Your task to perform on an android device: Do I have any events today? Image 0: 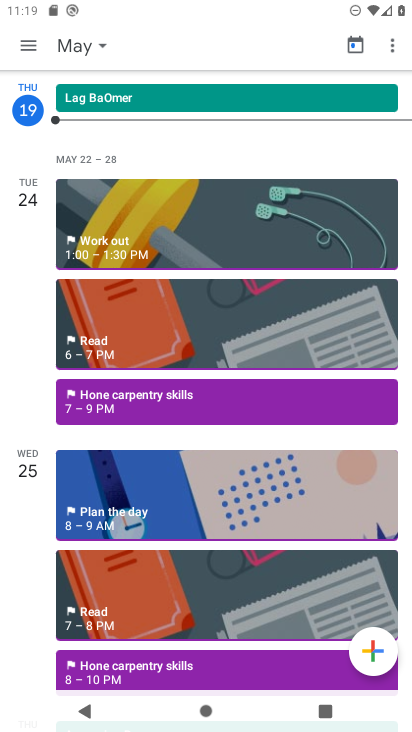
Step 0: press home button
Your task to perform on an android device: Do I have any events today? Image 1: 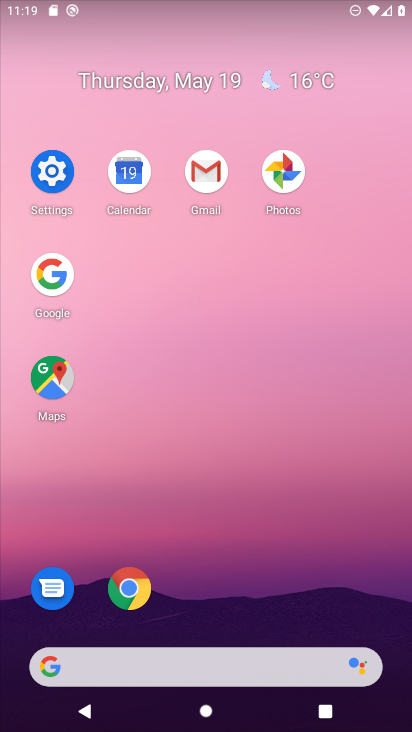
Step 1: click (122, 177)
Your task to perform on an android device: Do I have any events today? Image 2: 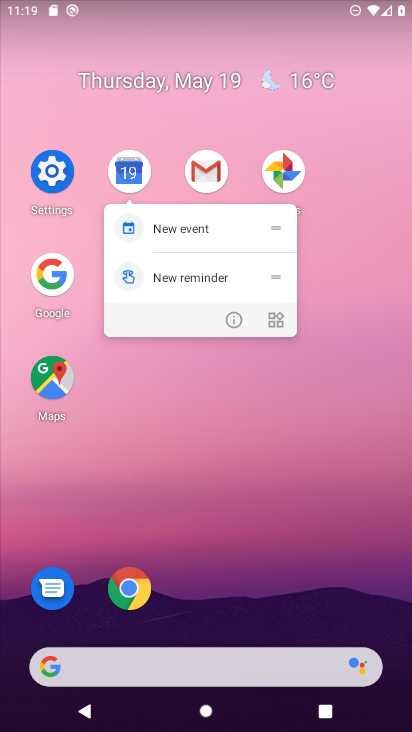
Step 2: click (139, 173)
Your task to perform on an android device: Do I have any events today? Image 3: 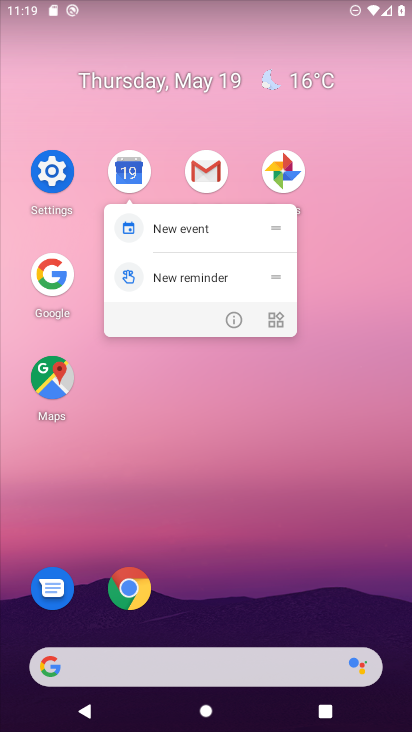
Step 3: click (139, 173)
Your task to perform on an android device: Do I have any events today? Image 4: 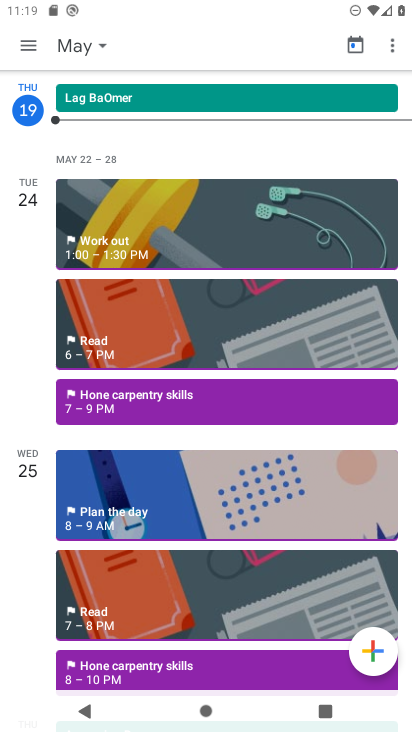
Step 4: click (99, 38)
Your task to perform on an android device: Do I have any events today? Image 5: 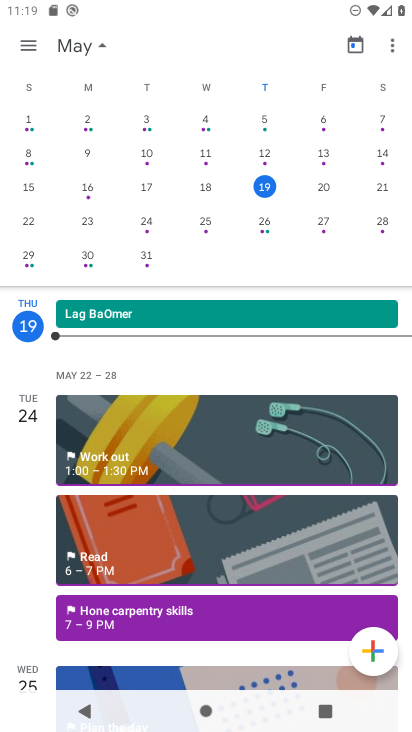
Step 5: click (379, 189)
Your task to perform on an android device: Do I have any events today? Image 6: 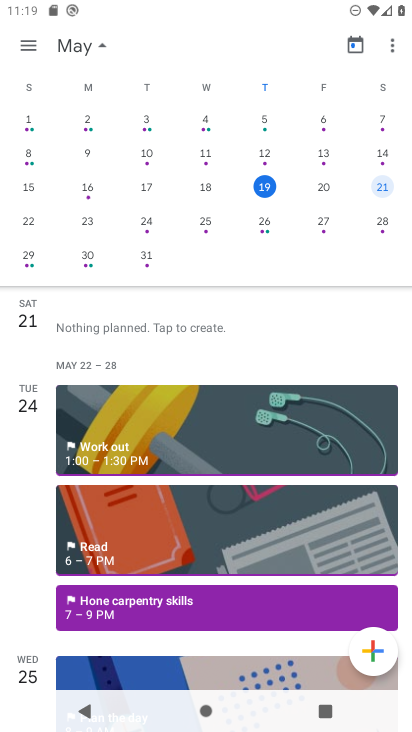
Step 6: click (33, 323)
Your task to perform on an android device: Do I have any events today? Image 7: 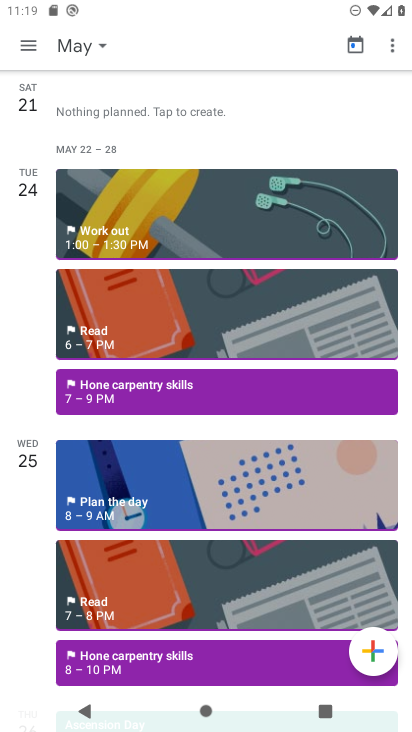
Step 7: task complete